Your task to perform on an android device: move a message to another label in the gmail app Image 0: 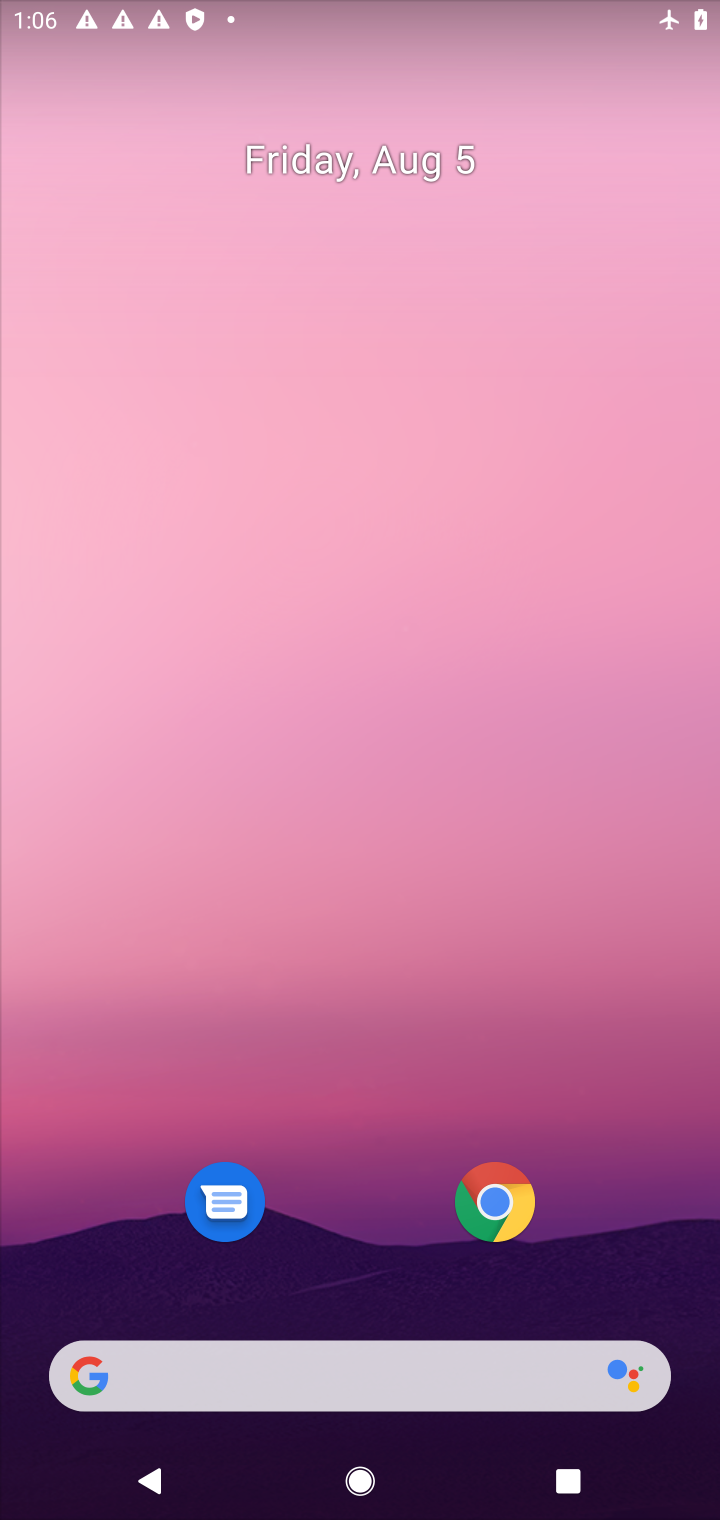
Step 0: drag from (354, 1198) to (420, 260)
Your task to perform on an android device: move a message to another label in the gmail app Image 1: 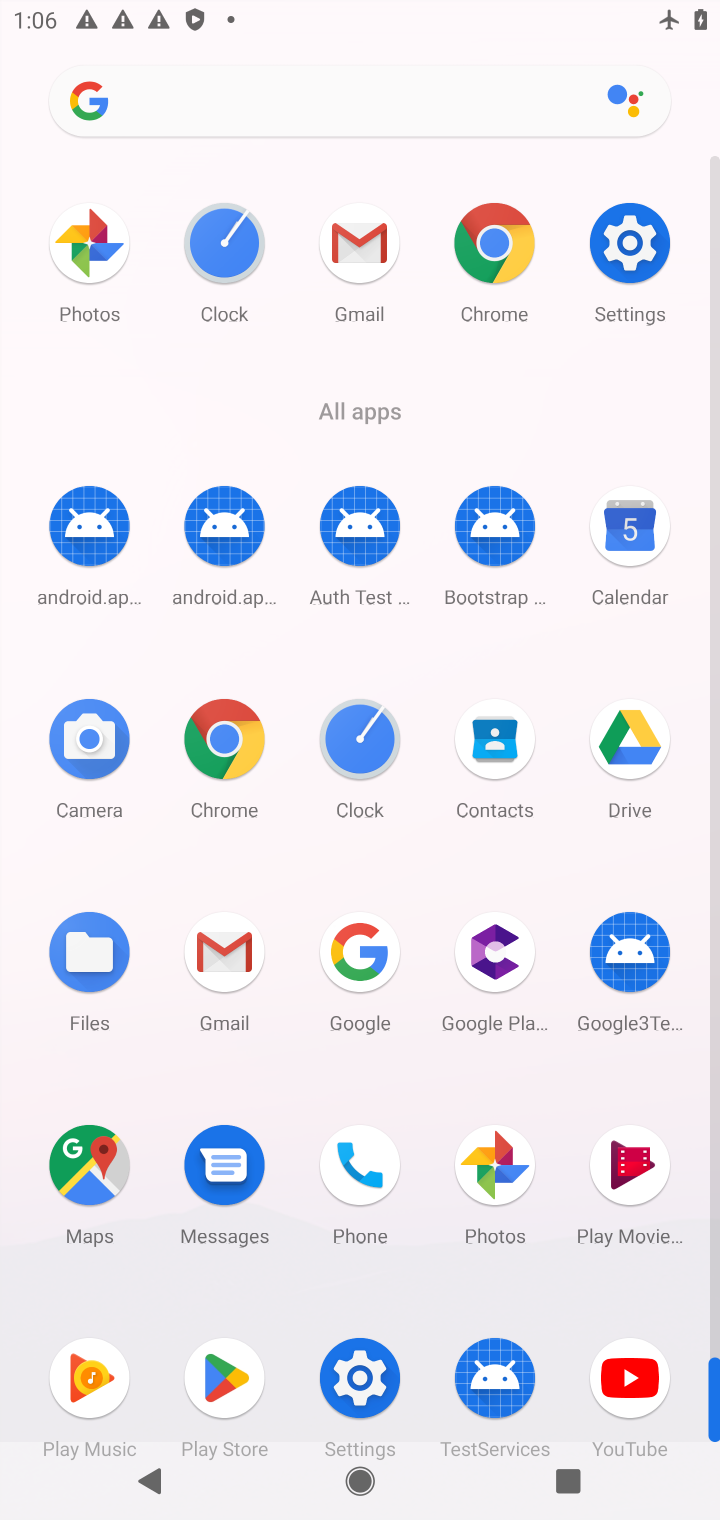
Step 1: click (242, 952)
Your task to perform on an android device: move a message to another label in the gmail app Image 2: 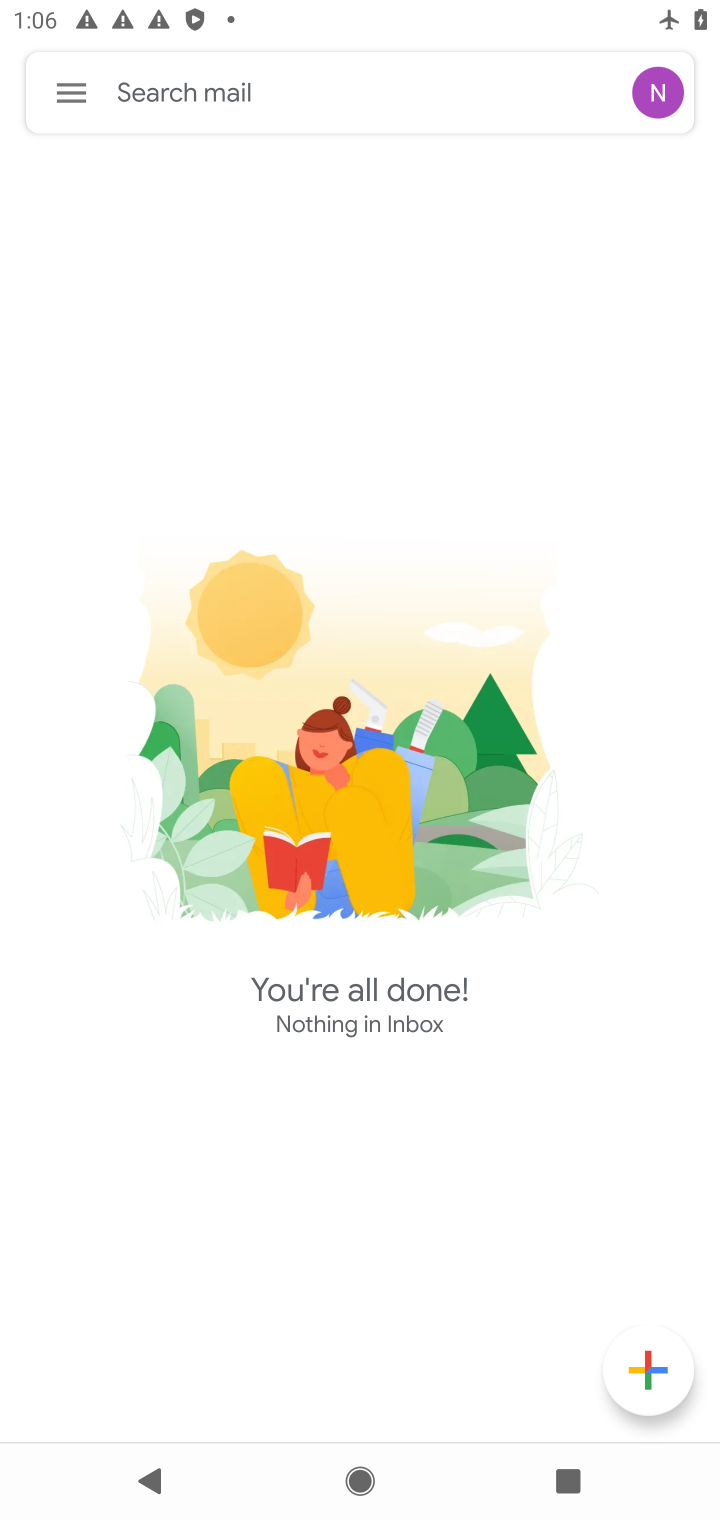
Step 2: click (81, 90)
Your task to perform on an android device: move a message to another label in the gmail app Image 3: 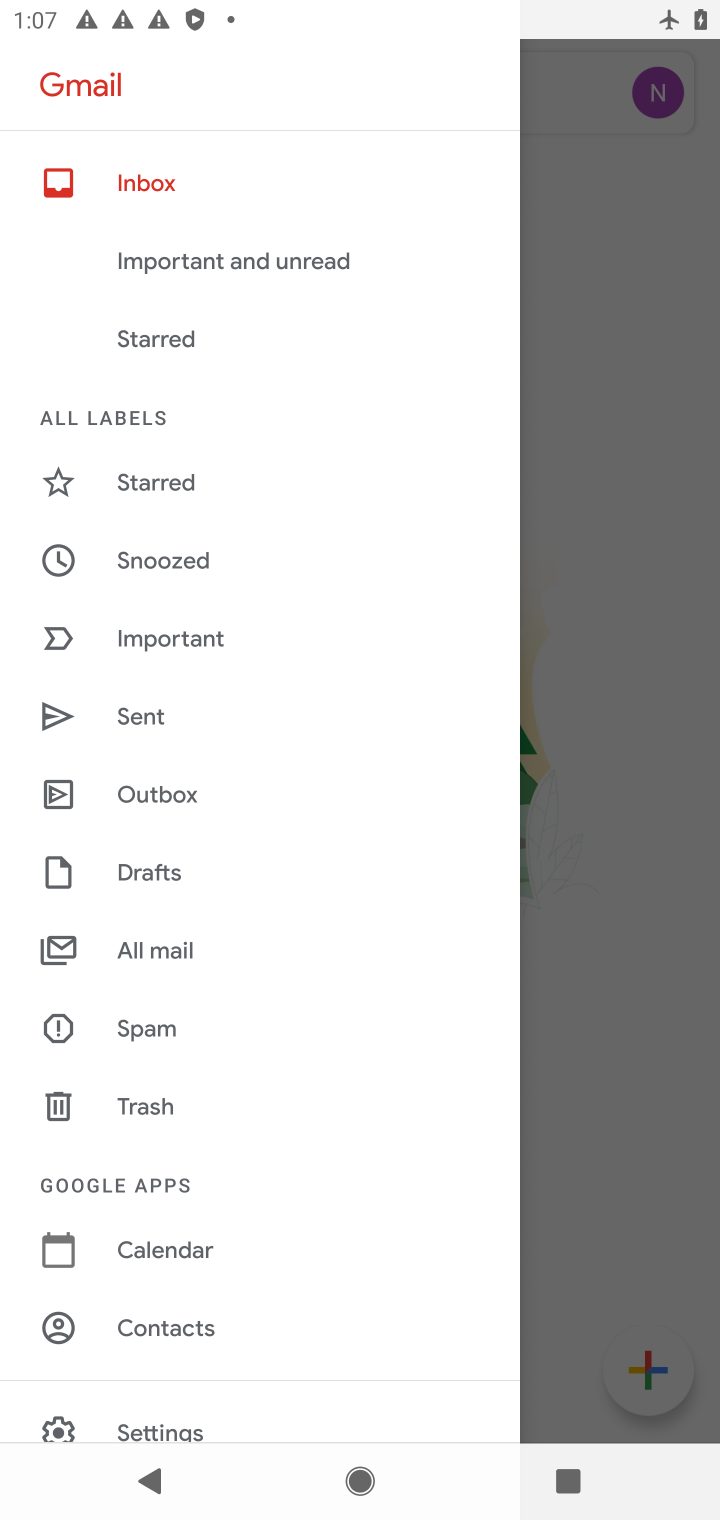
Step 3: click (144, 943)
Your task to perform on an android device: move a message to another label in the gmail app Image 4: 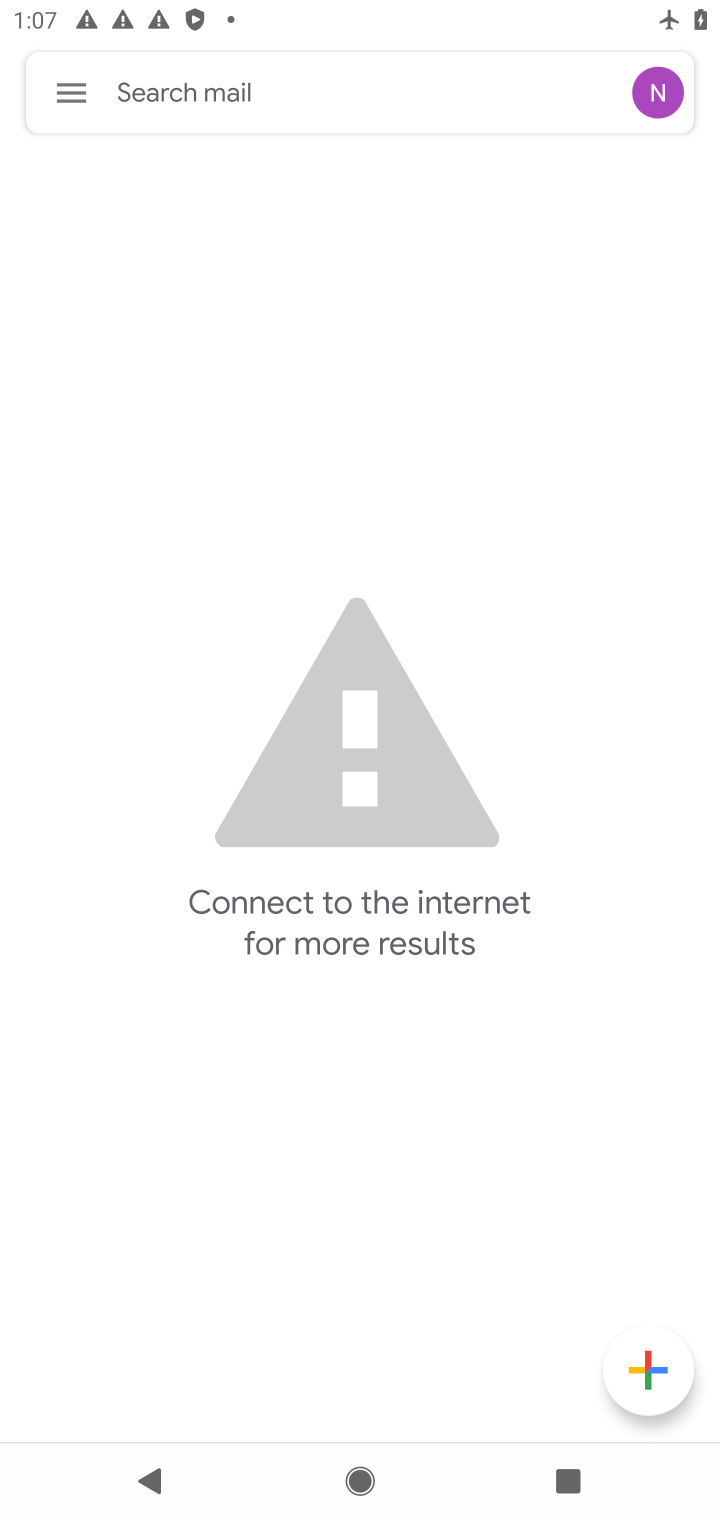
Step 4: task complete